Your task to perform on an android device: open chrome and create a bookmark for the current page Image 0: 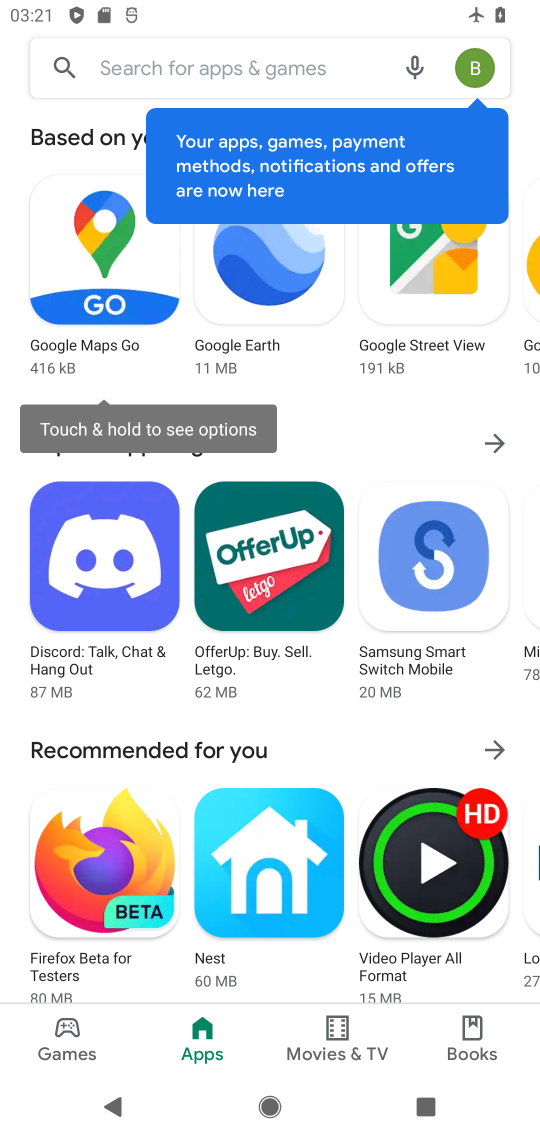
Step 0: press home button
Your task to perform on an android device: open chrome and create a bookmark for the current page Image 1: 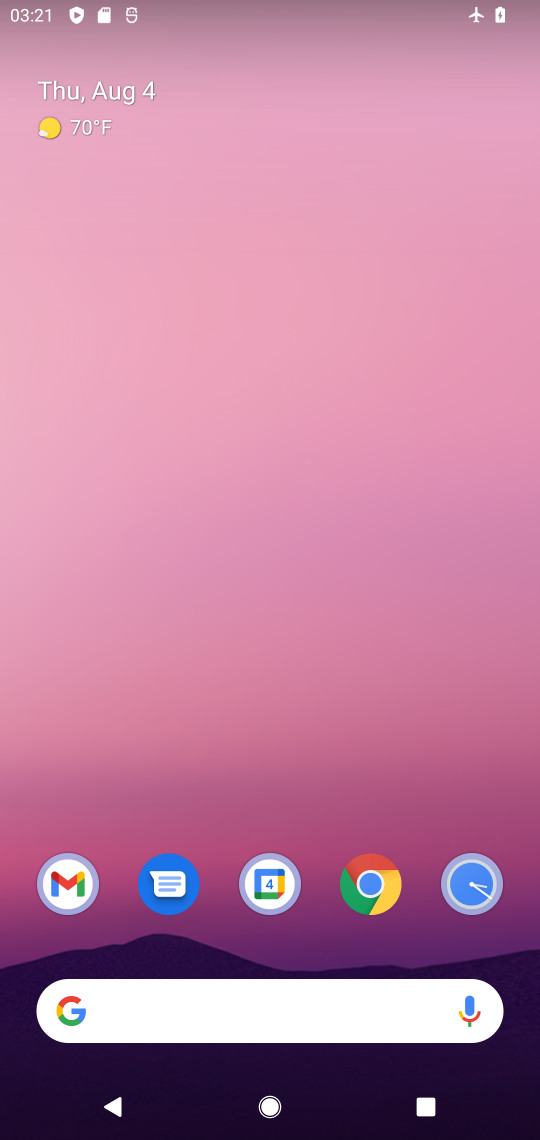
Step 1: drag from (384, 755) to (402, 185)
Your task to perform on an android device: open chrome and create a bookmark for the current page Image 2: 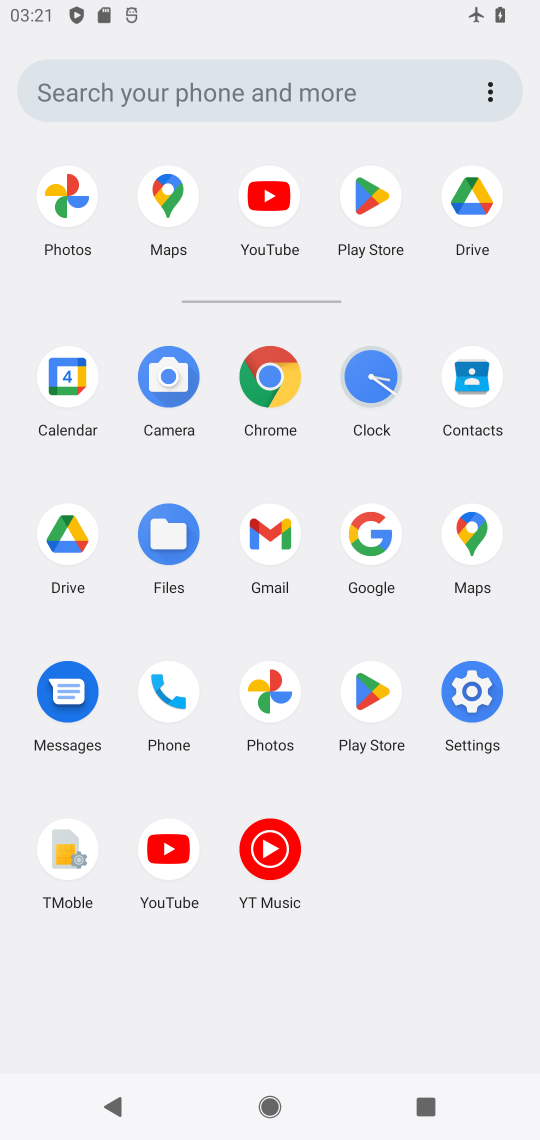
Step 2: click (272, 390)
Your task to perform on an android device: open chrome and create a bookmark for the current page Image 3: 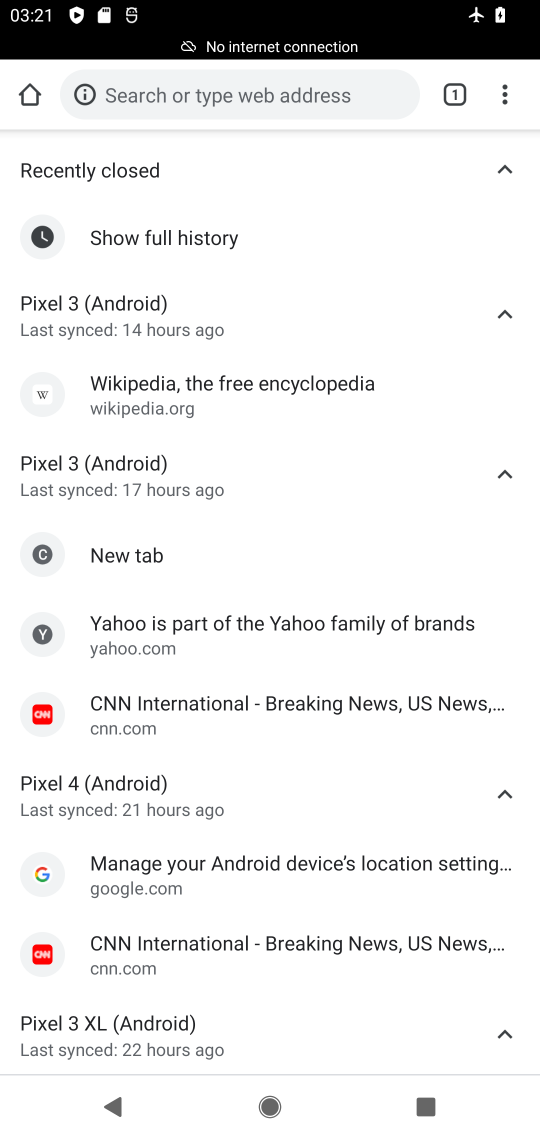
Step 3: click (506, 100)
Your task to perform on an android device: open chrome and create a bookmark for the current page Image 4: 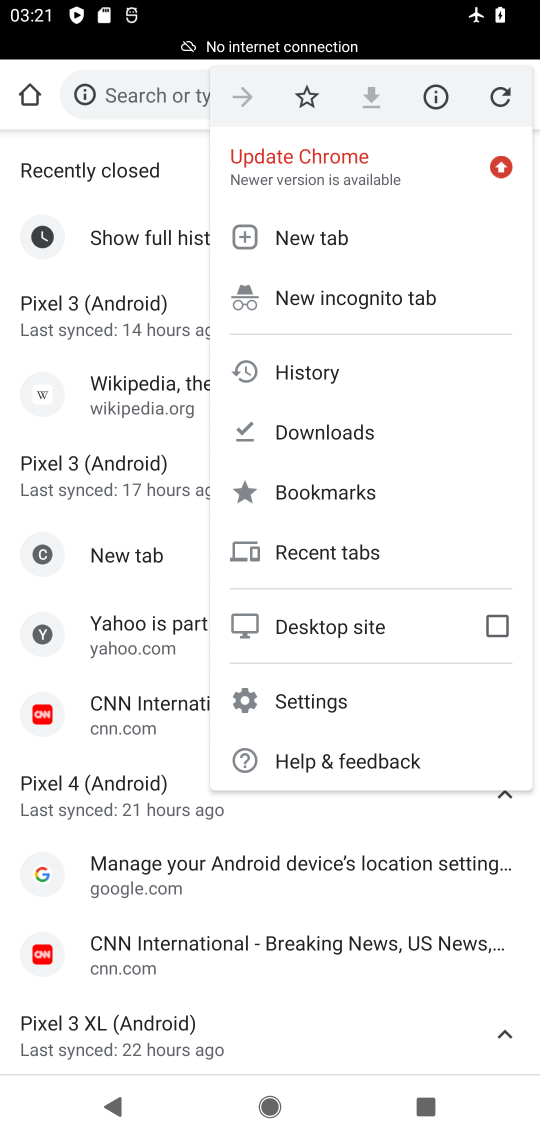
Step 4: click (307, 87)
Your task to perform on an android device: open chrome and create a bookmark for the current page Image 5: 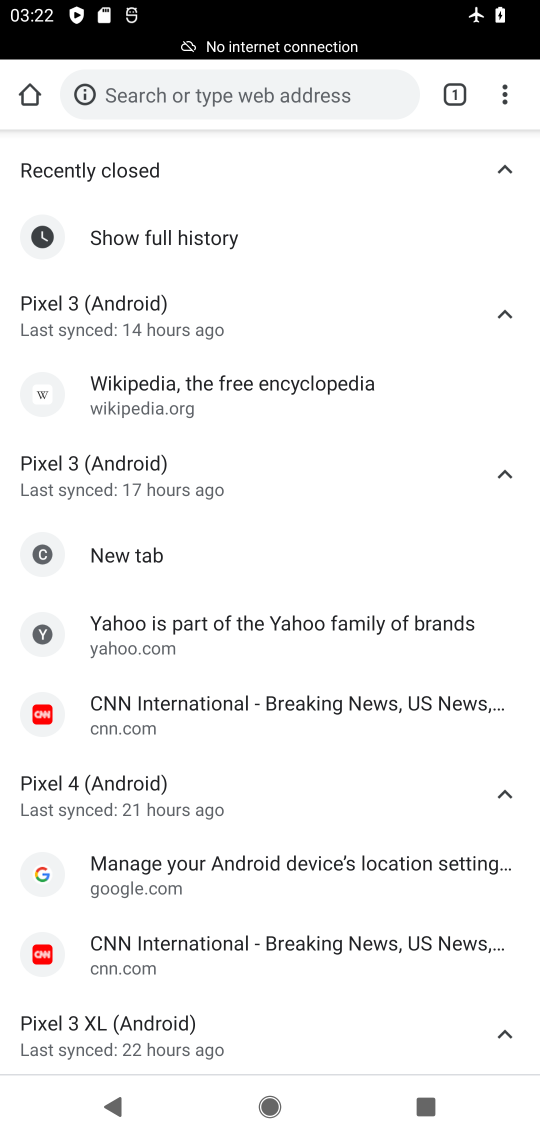
Step 5: task complete